Your task to perform on an android device: set the stopwatch Image 0: 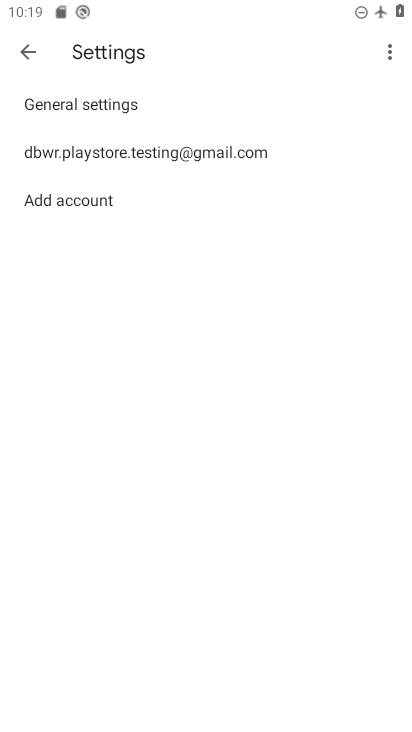
Step 0: press home button
Your task to perform on an android device: set the stopwatch Image 1: 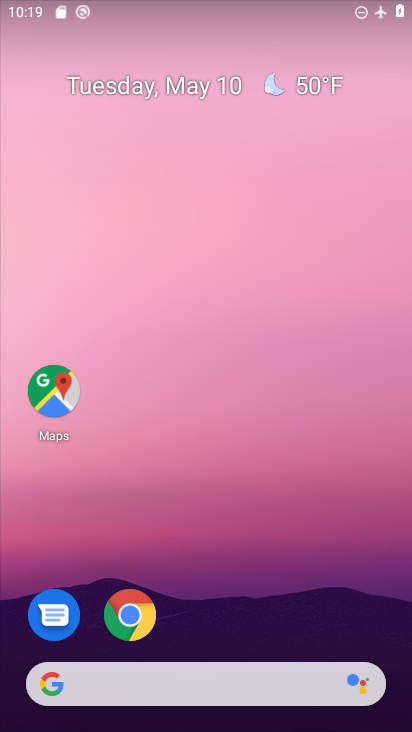
Step 1: drag from (385, 662) to (282, 97)
Your task to perform on an android device: set the stopwatch Image 2: 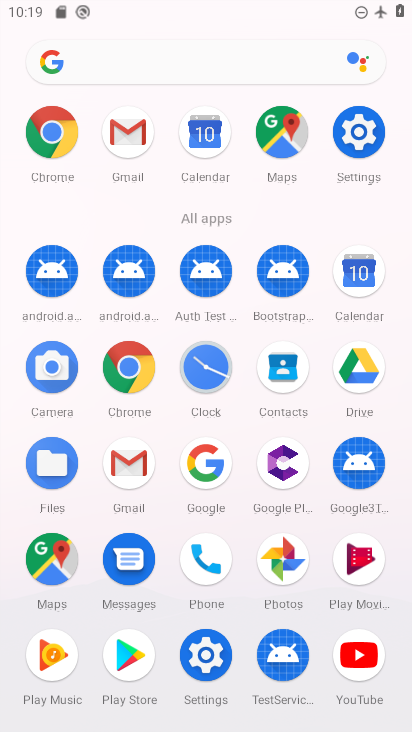
Step 2: click (204, 367)
Your task to perform on an android device: set the stopwatch Image 3: 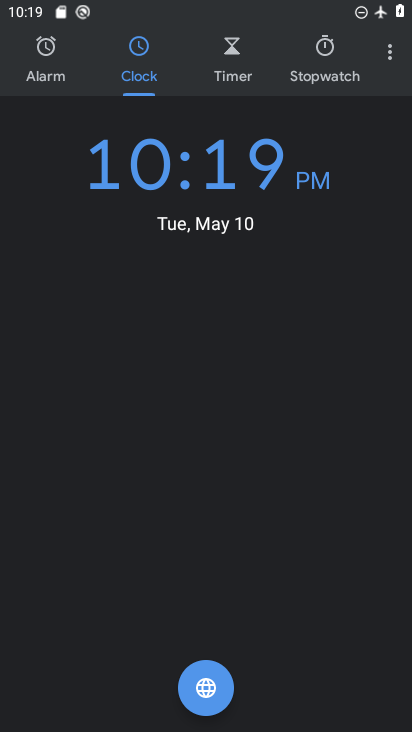
Step 3: click (328, 47)
Your task to perform on an android device: set the stopwatch Image 4: 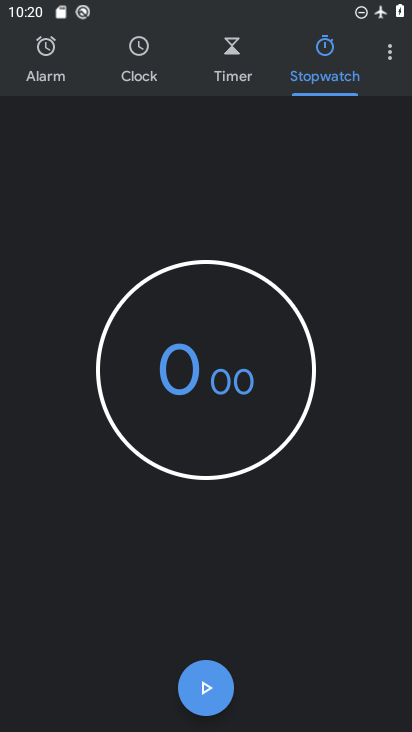
Step 4: task complete